Your task to perform on an android device: open app "Facebook Messenger" Image 0: 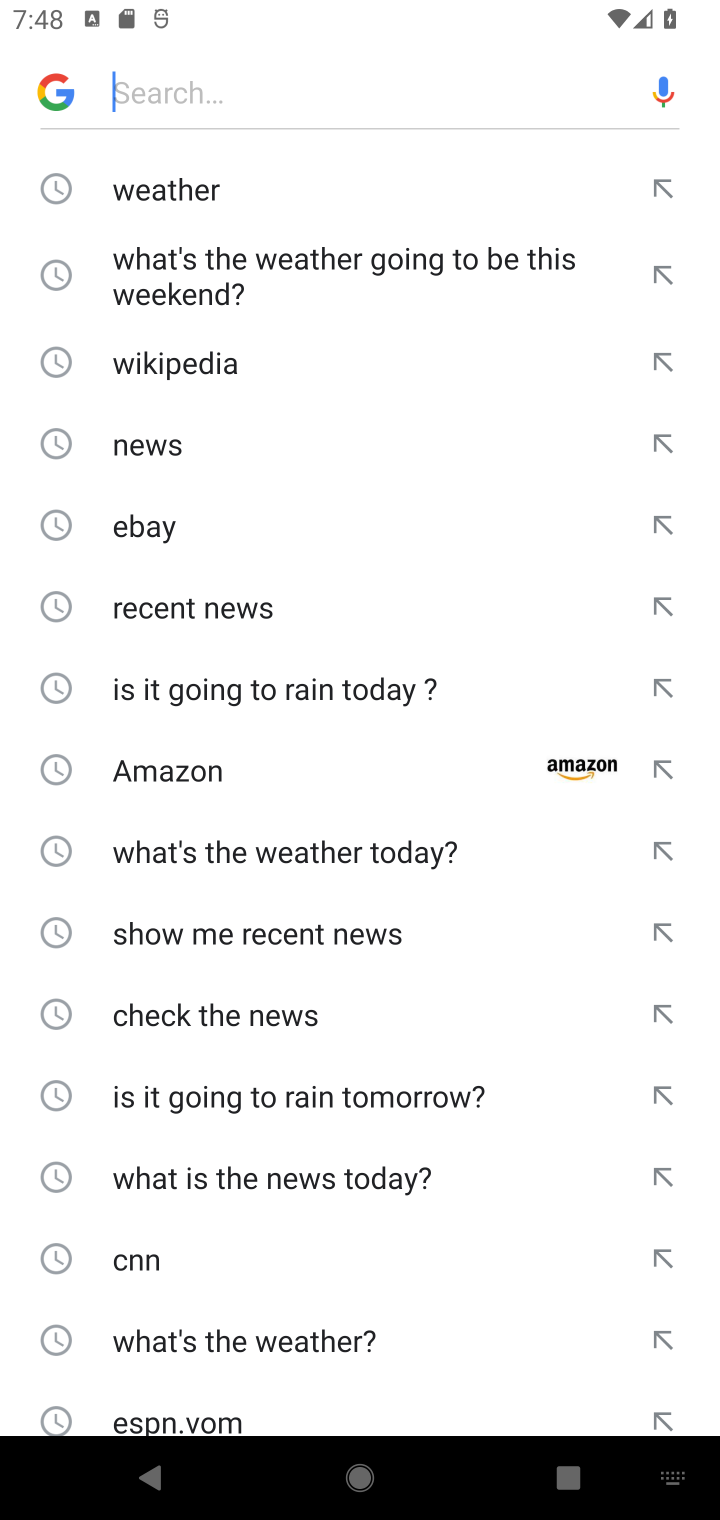
Step 0: press home button
Your task to perform on an android device: open app "Facebook Messenger" Image 1: 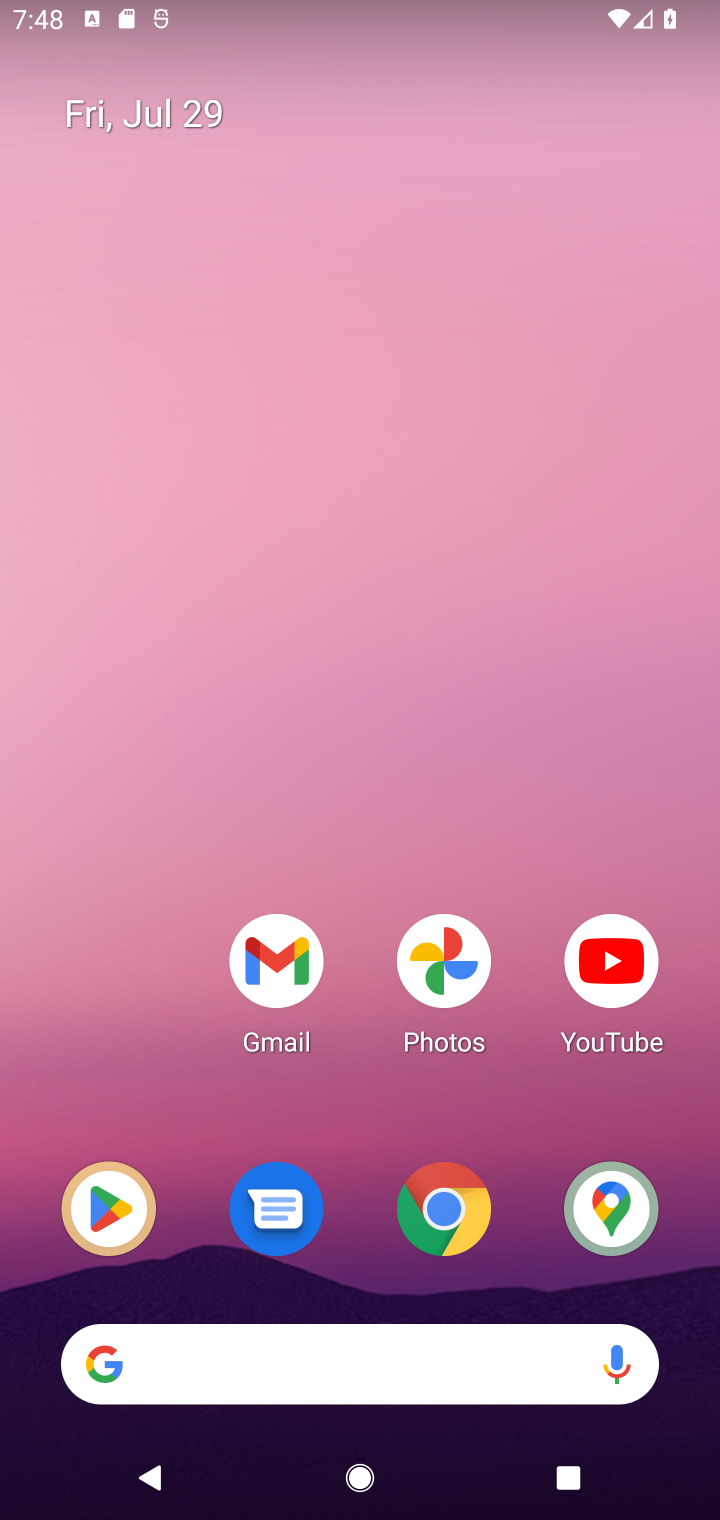
Step 1: click (112, 1207)
Your task to perform on an android device: open app "Facebook Messenger" Image 2: 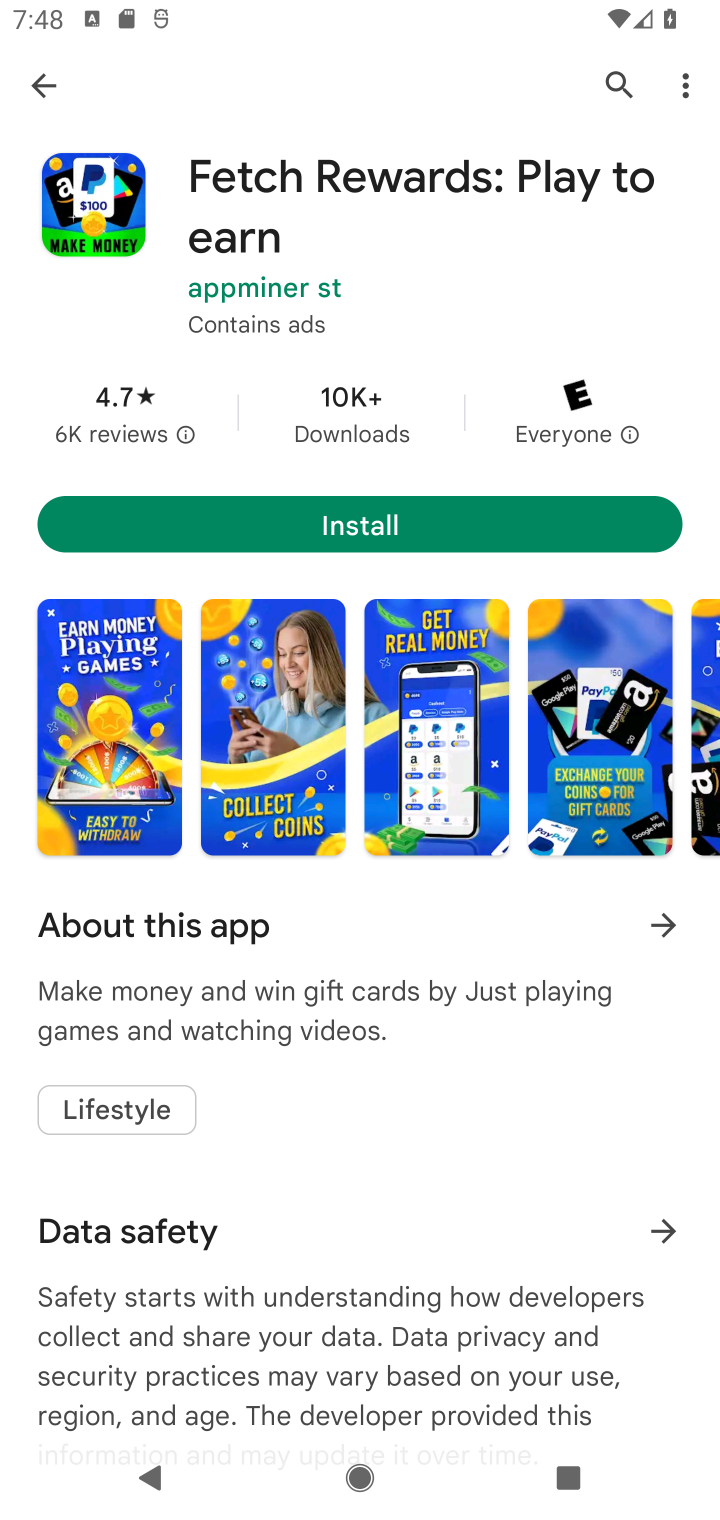
Step 2: click (616, 96)
Your task to perform on an android device: open app "Facebook Messenger" Image 3: 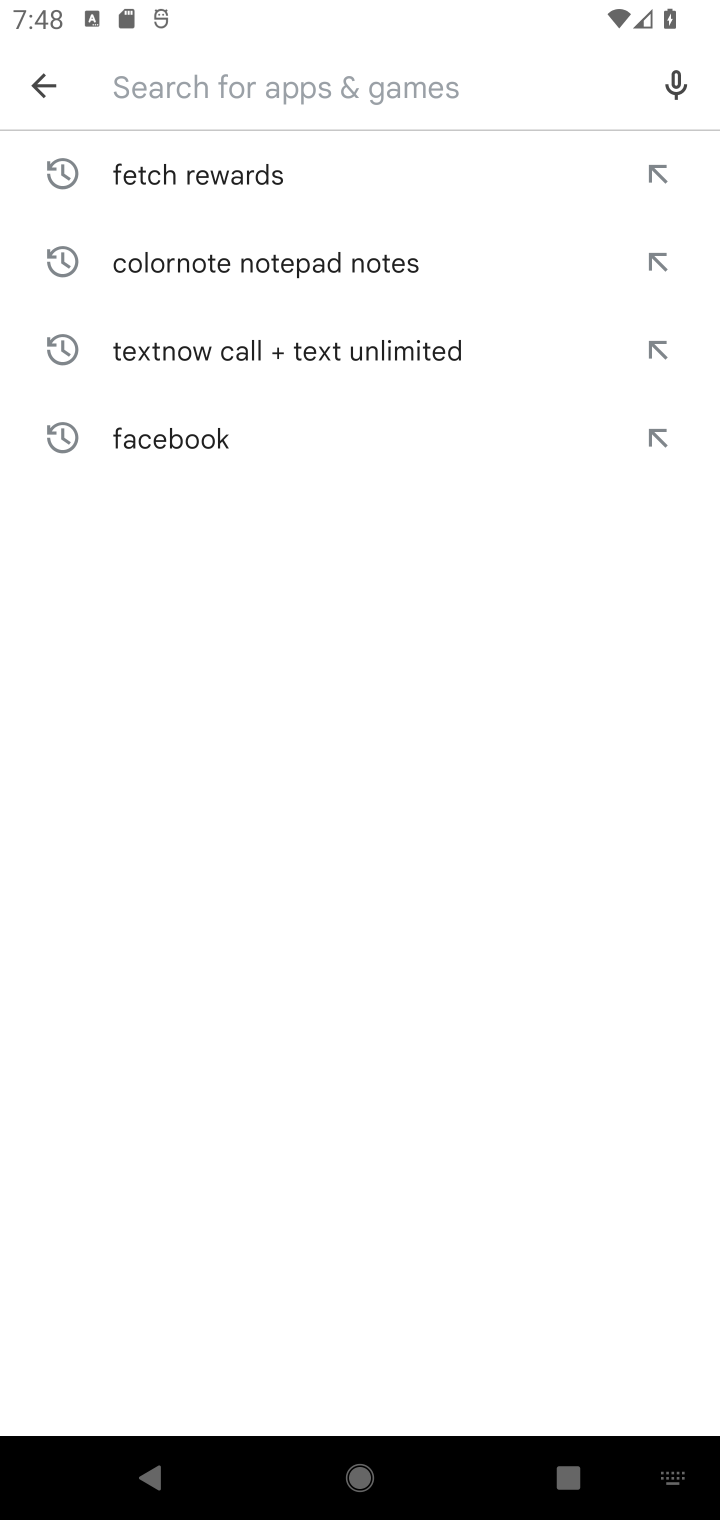
Step 3: type "Facebook Messenger"
Your task to perform on an android device: open app "Facebook Messenger" Image 4: 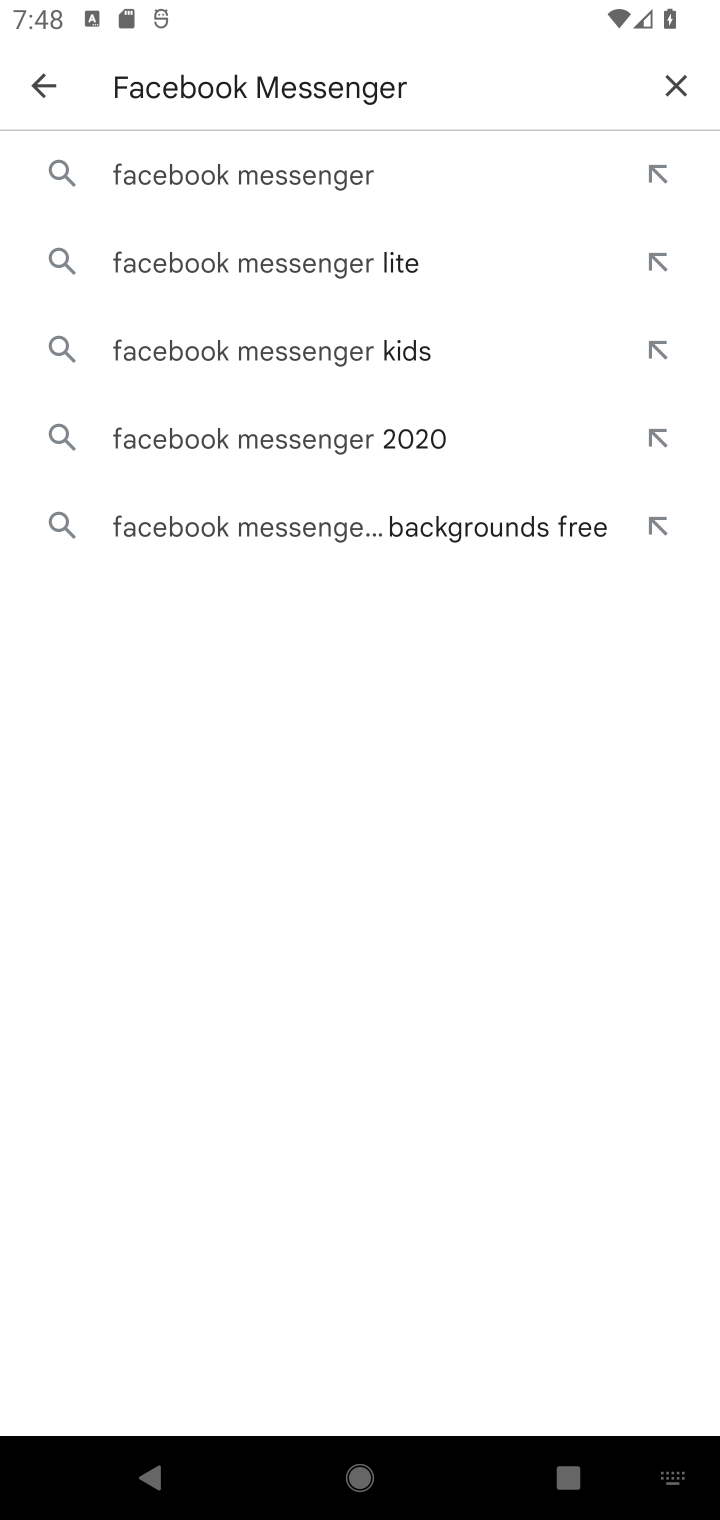
Step 4: click (296, 185)
Your task to perform on an android device: open app "Facebook Messenger" Image 5: 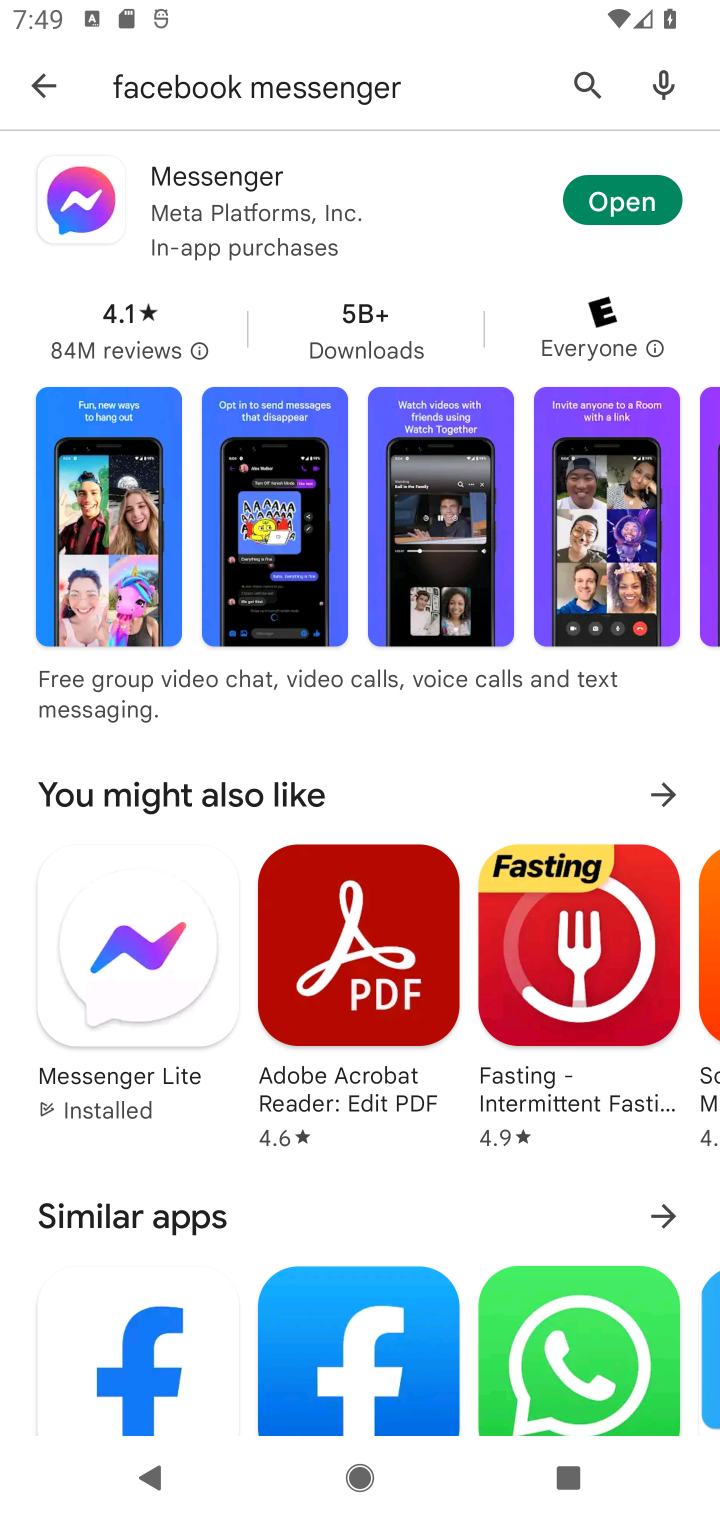
Step 5: click (659, 221)
Your task to perform on an android device: open app "Facebook Messenger" Image 6: 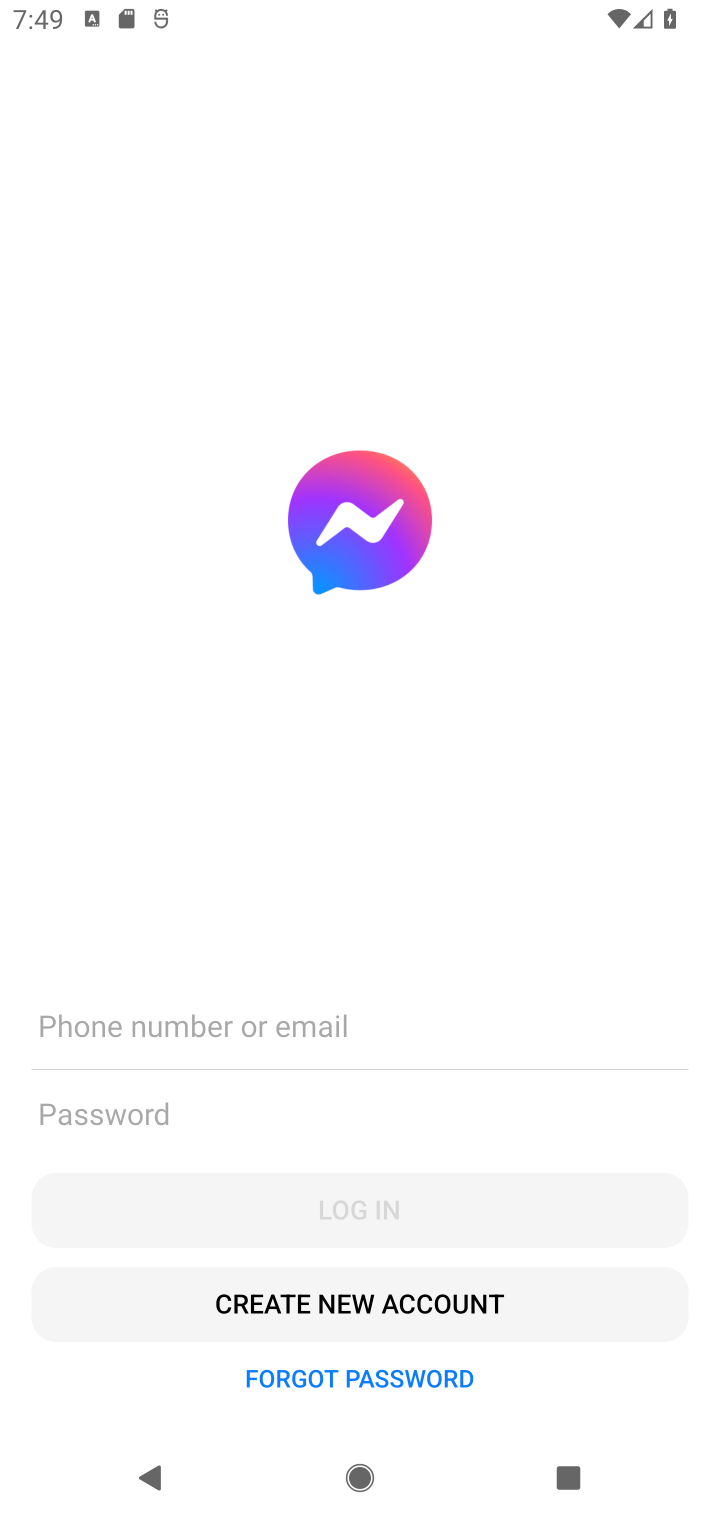
Step 6: task complete